Your task to perform on an android device: check battery use Image 0: 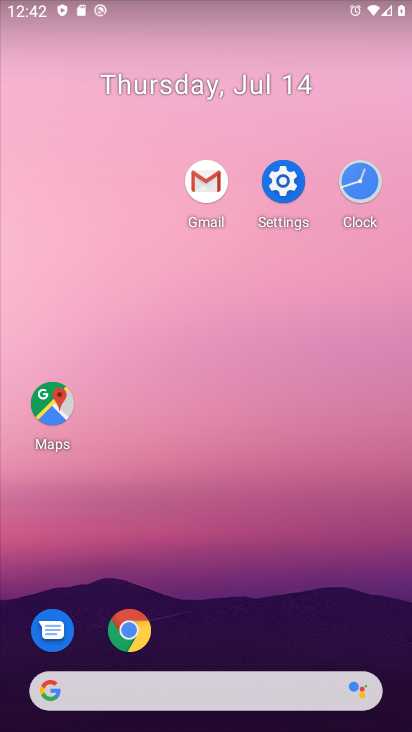
Step 0: click (278, 178)
Your task to perform on an android device: check battery use Image 1: 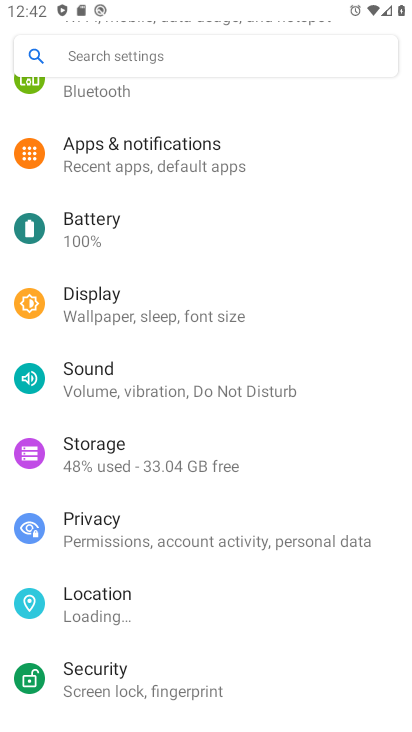
Step 1: click (190, 232)
Your task to perform on an android device: check battery use Image 2: 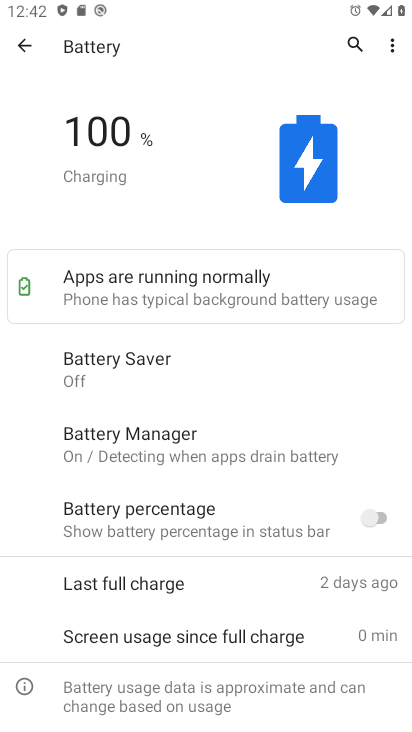
Step 2: task complete